Your task to perform on an android device: Set the phone to "Do not disturb". Image 0: 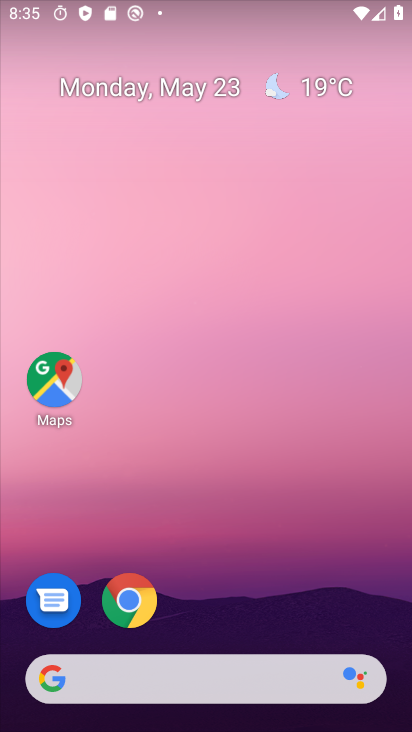
Step 0: drag from (196, 1) to (212, 496)
Your task to perform on an android device: Set the phone to "Do not disturb". Image 1: 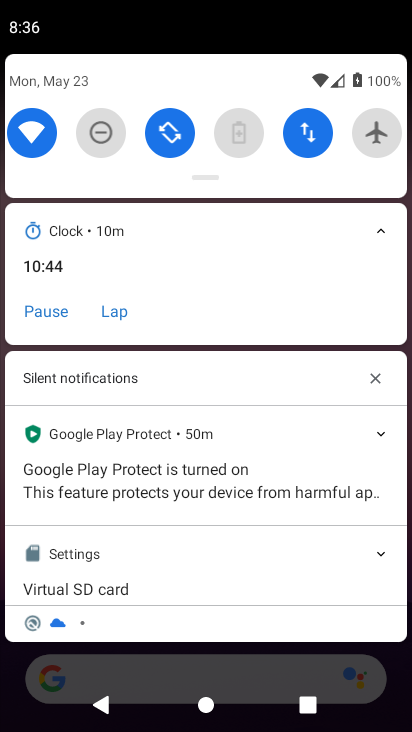
Step 1: click (90, 137)
Your task to perform on an android device: Set the phone to "Do not disturb". Image 2: 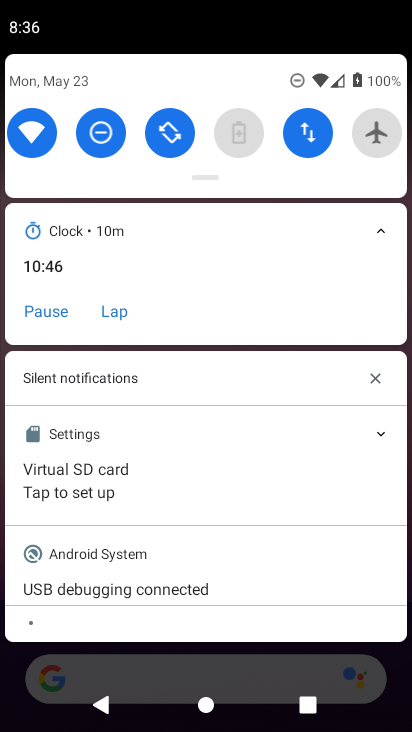
Step 2: task complete